Your task to perform on an android device: Go to eBay Image 0: 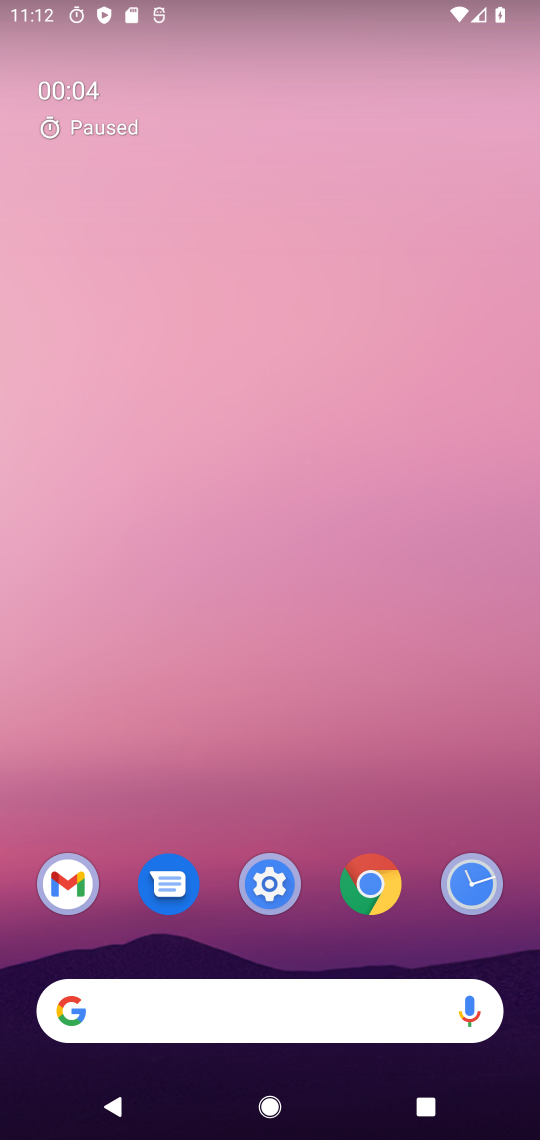
Step 0: click (379, 884)
Your task to perform on an android device: Go to eBay Image 1: 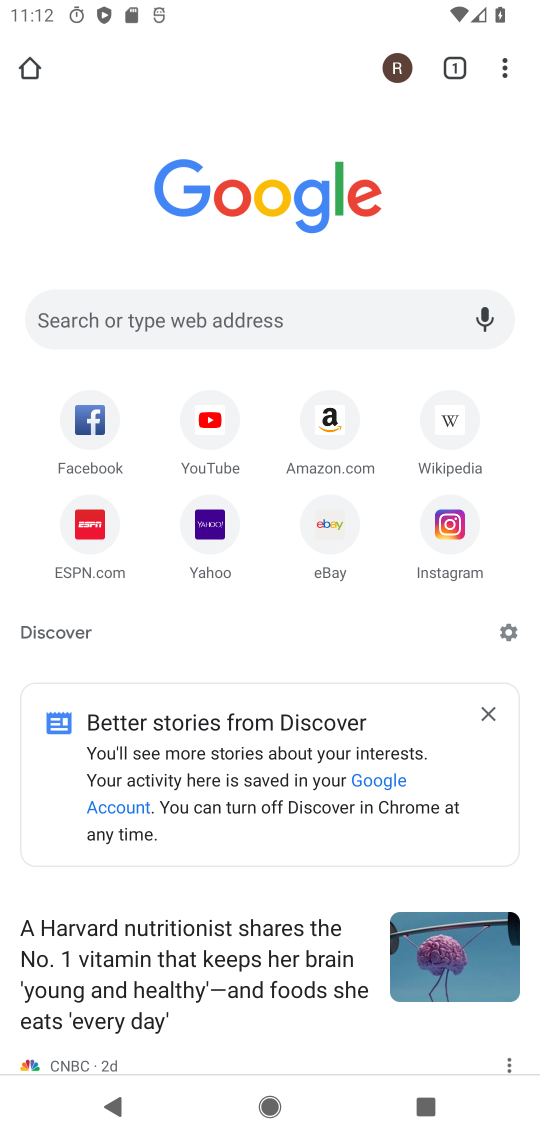
Step 1: click (332, 545)
Your task to perform on an android device: Go to eBay Image 2: 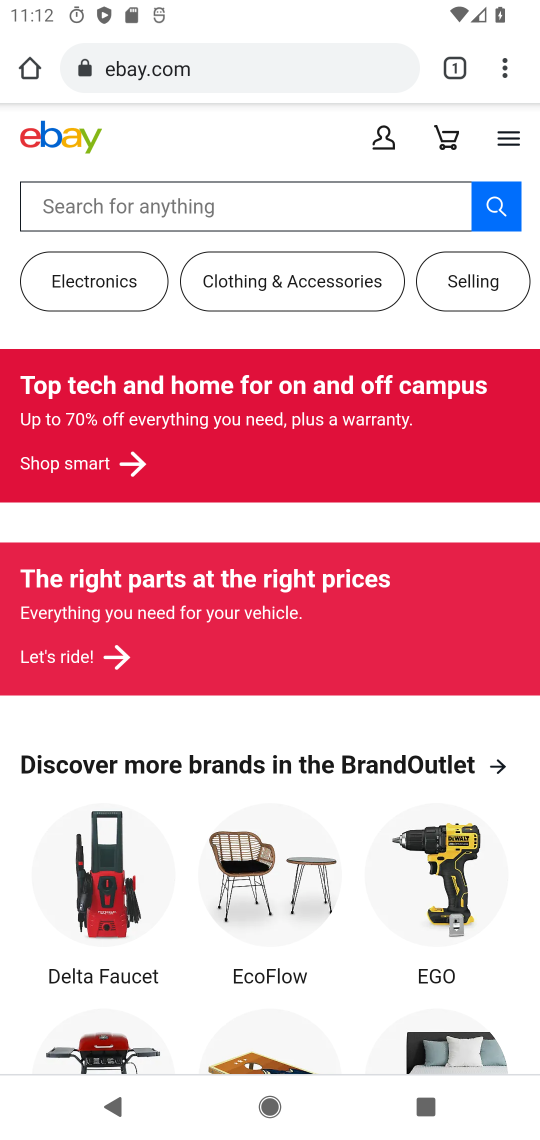
Step 2: task complete